Your task to perform on an android device: open app "Skype" Image 0: 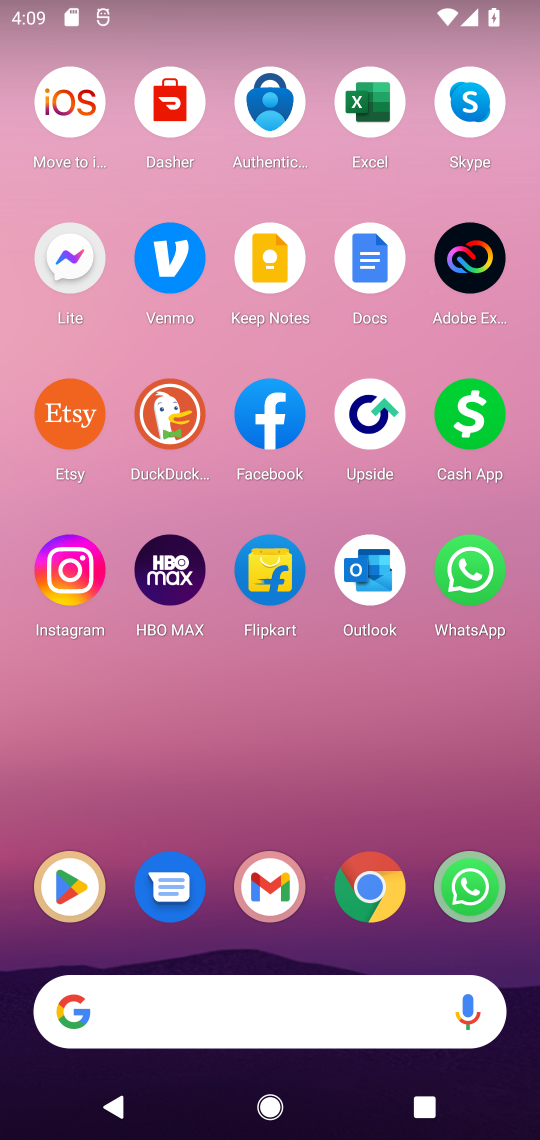
Step 0: click (87, 900)
Your task to perform on an android device: open app "Skype" Image 1: 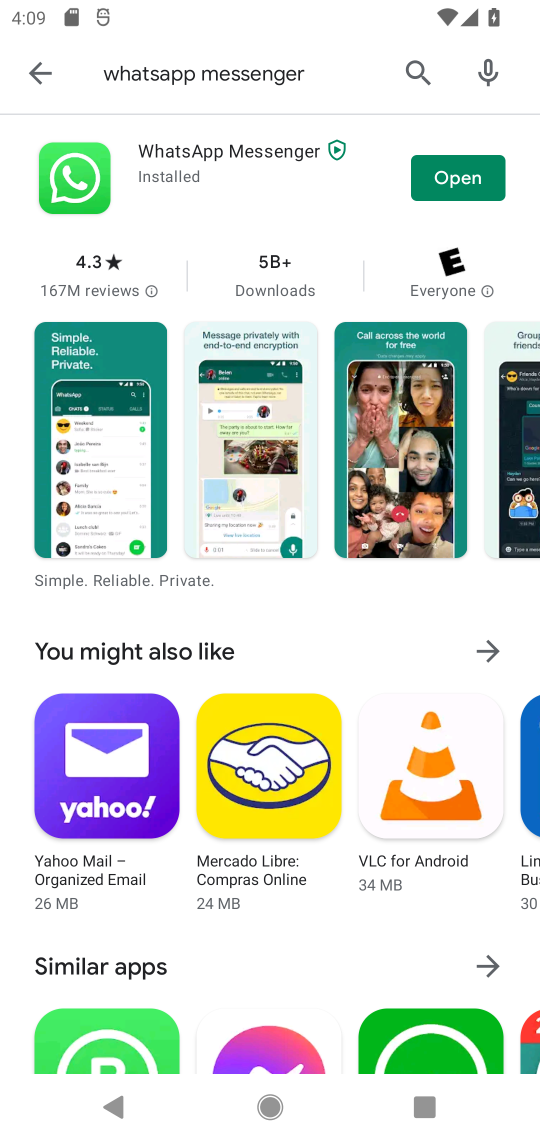
Step 1: click (45, 75)
Your task to perform on an android device: open app "Skype" Image 2: 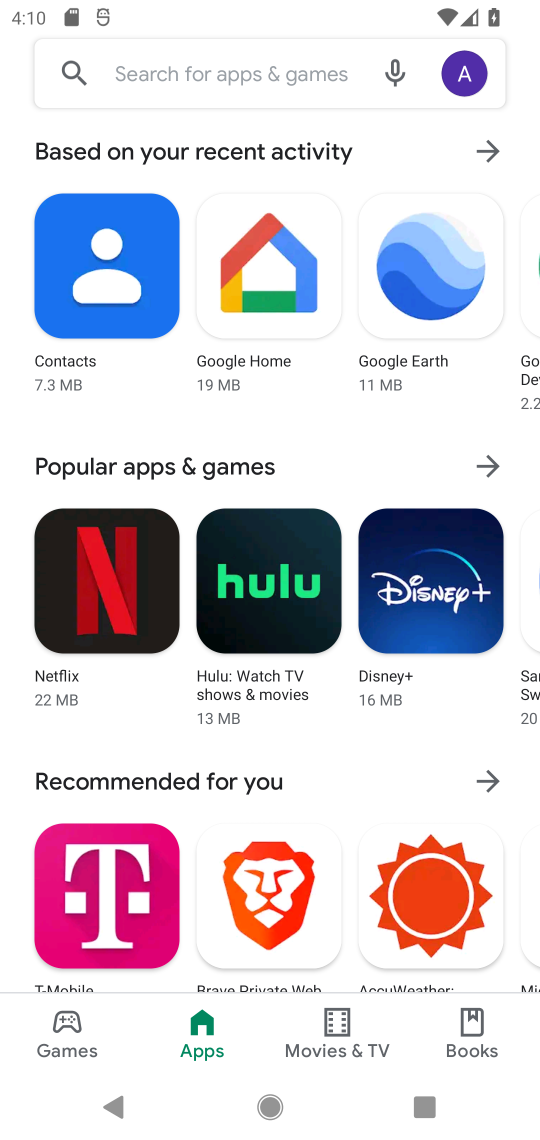
Step 2: click (139, 81)
Your task to perform on an android device: open app "Skype" Image 3: 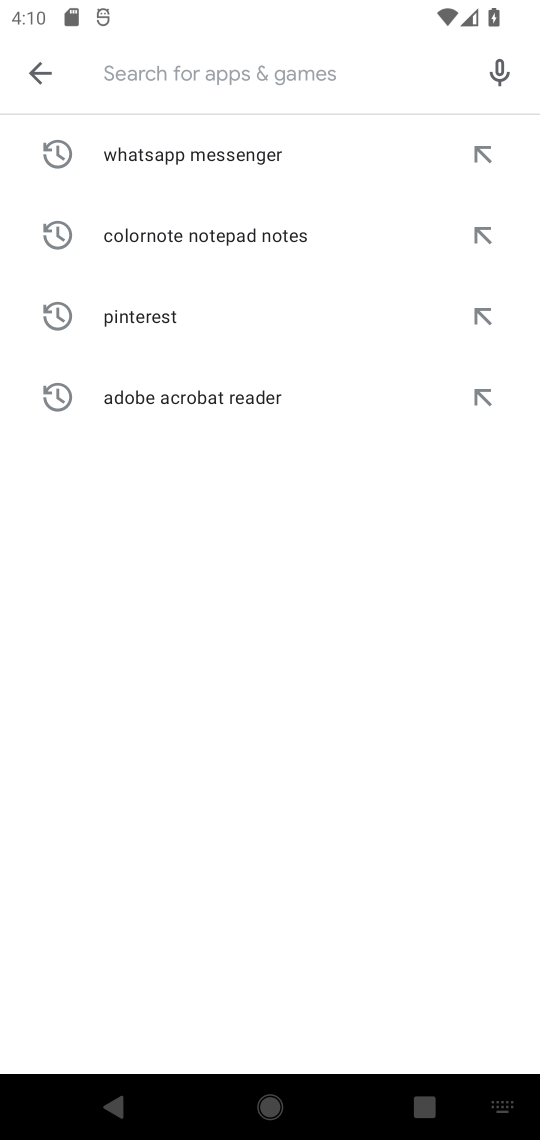
Step 3: type "Skype"
Your task to perform on an android device: open app "Skype" Image 4: 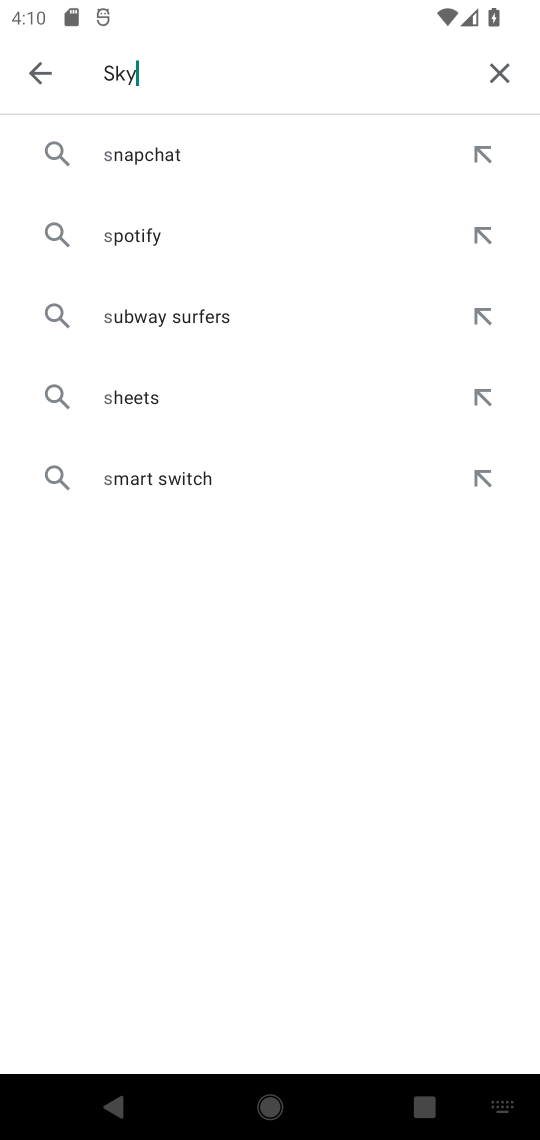
Step 4: type ""
Your task to perform on an android device: open app "Skype" Image 5: 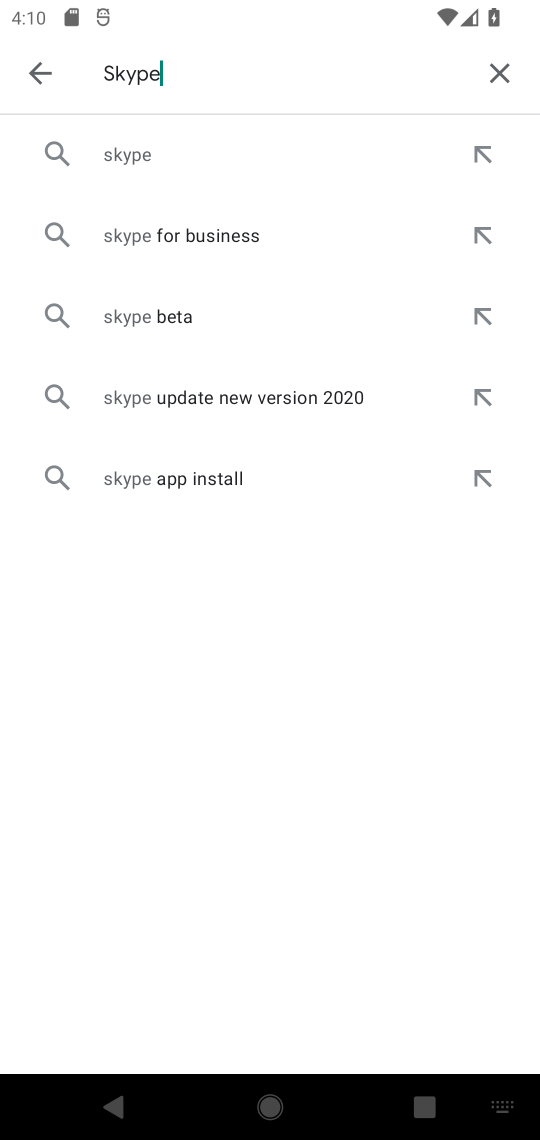
Step 5: click (100, 155)
Your task to perform on an android device: open app "Skype" Image 6: 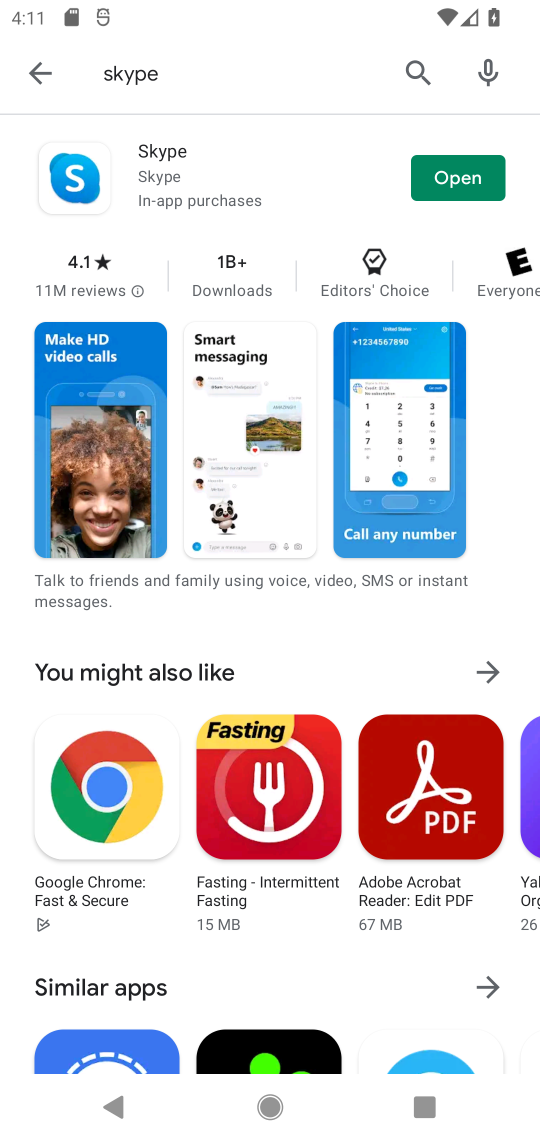
Step 6: click (458, 188)
Your task to perform on an android device: open app "Skype" Image 7: 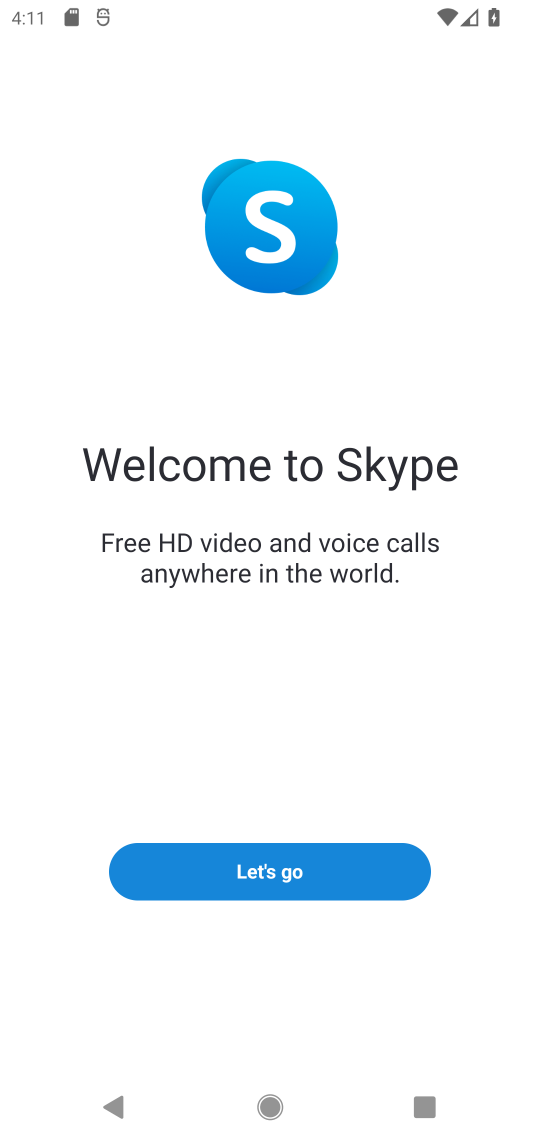
Step 7: click (205, 865)
Your task to perform on an android device: open app "Skype" Image 8: 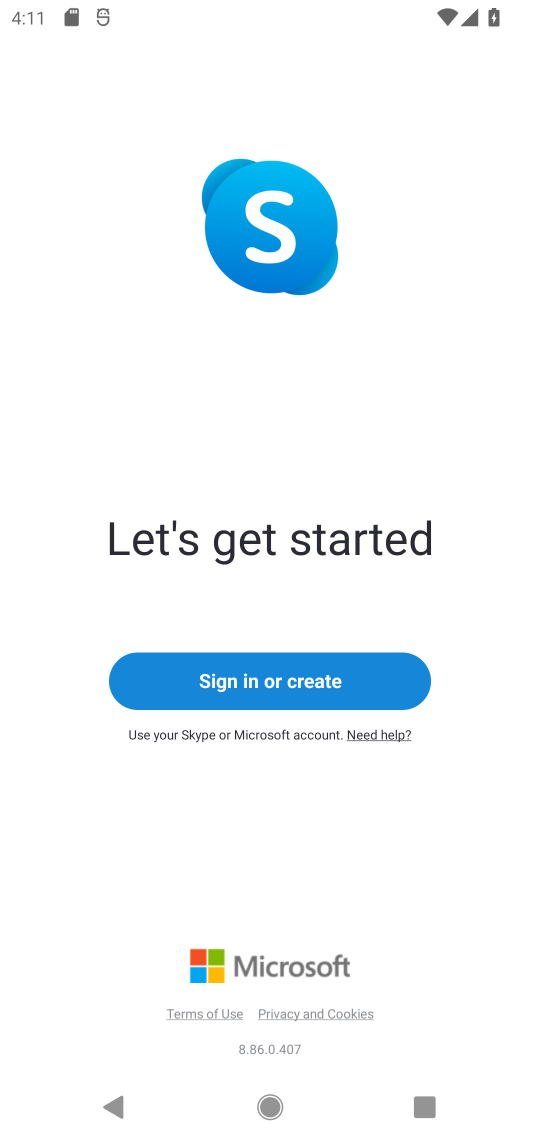
Step 8: task complete